Your task to perform on an android device: Show me recent news Image 0: 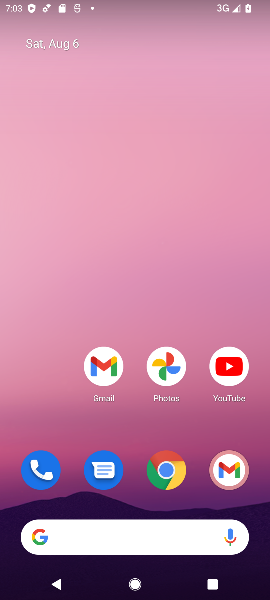
Step 0: press home button
Your task to perform on an android device: Show me recent news Image 1: 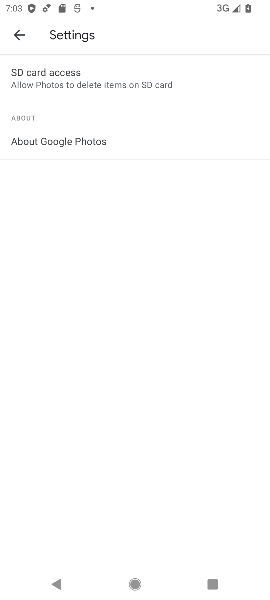
Step 1: press home button
Your task to perform on an android device: Show me recent news Image 2: 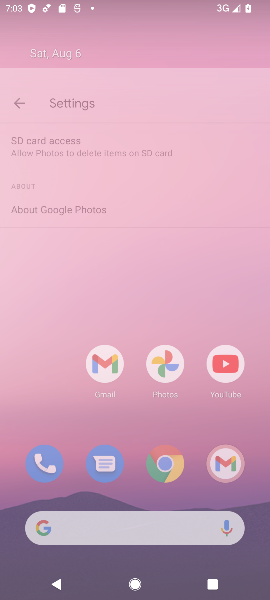
Step 2: press home button
Your task to perform on an android device: Show me recent news Image 3: 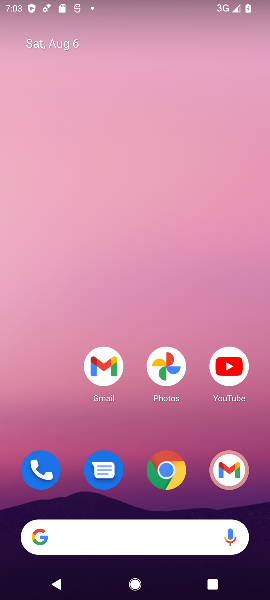
Step 3: press home button
Your task to perform on an android device: Show me recent news Image 4: 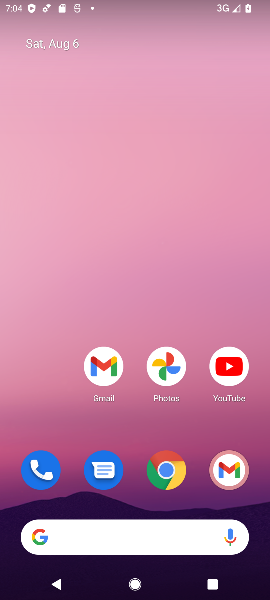
Step 4: click (189, 462)
Your task to perform on an android device: Show me recent news Image 5: 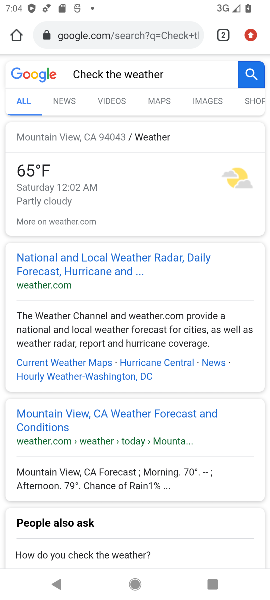
Step 5: click (136, 33)
Your task to perform on an android device: Show me recent news Image 6: 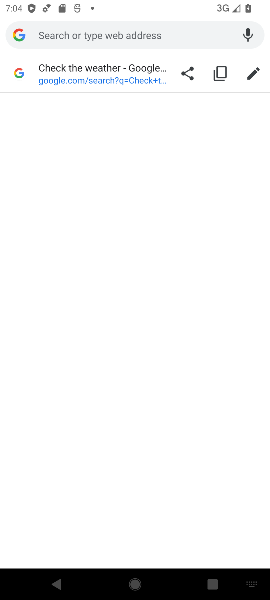
Step 6: type "Show me recent news"
Your task to perform on an android device: Show me recent news Image 7: 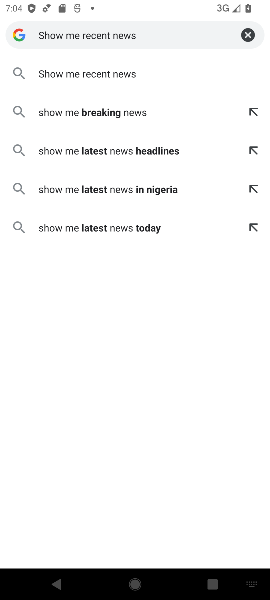
Step 7: click (99, 75)
Your task to perform on an android device: Show me recent news Image 8: 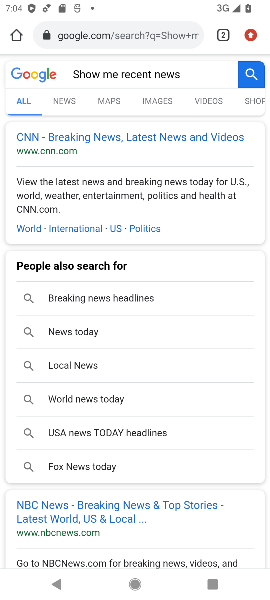
Step 8: task complete